Your task to perform on an android device: Open notification settings Image 0: 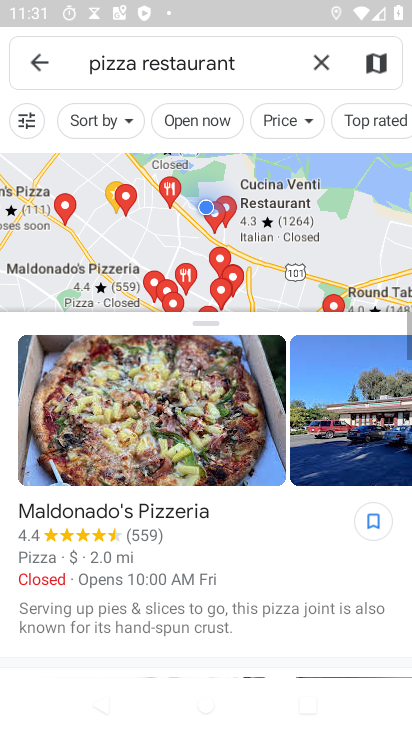
Step 0: press home button
Your task to perform on an android device: Open notification settings Image 1: 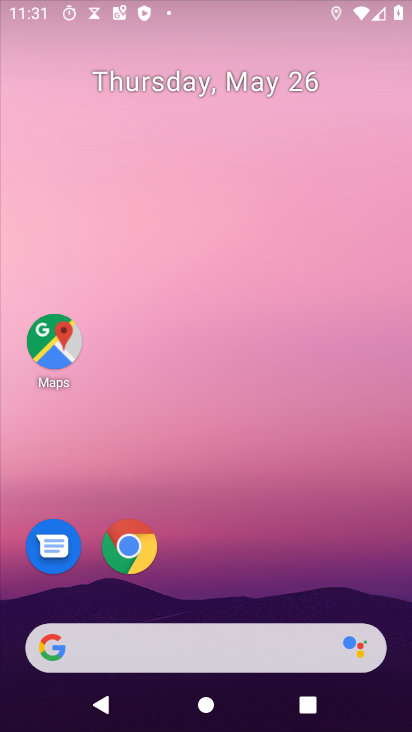
Step 1: drag from (368, 561) to (305, 126)
Your task to perform on an android device: Open notification settings Image 2: 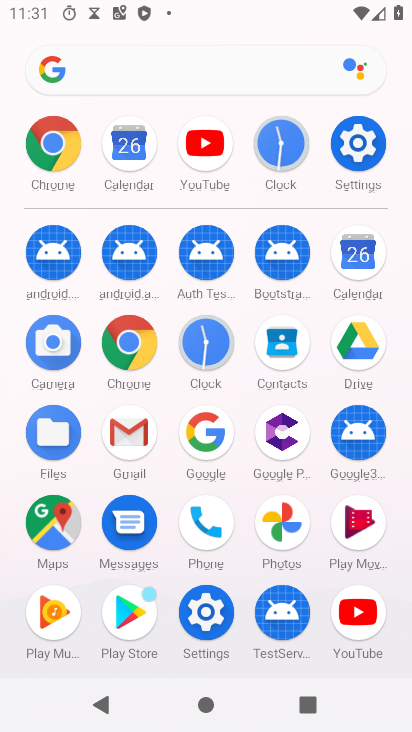
Step 2: click (203, 623)
Your task to perform on an android device: Open notification settings Image 3: 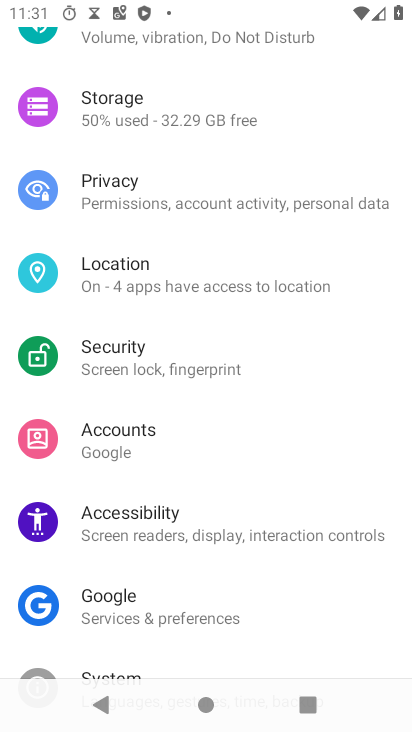
Step 3: drag from (226, 303) to (233, 647)
Your task to perform on an android device: Open notification settings Image 4: 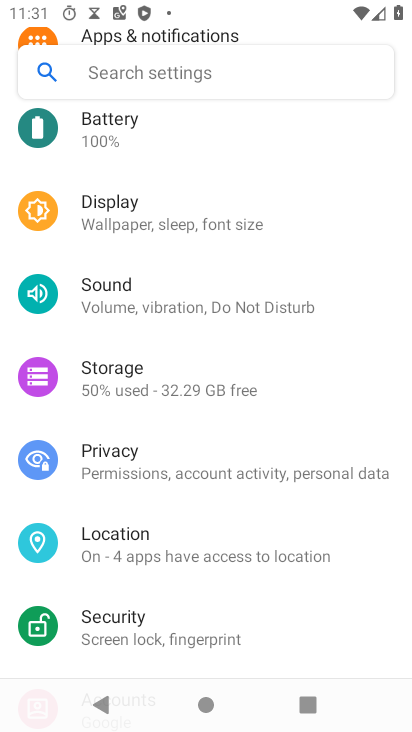
Step 4: drag from (193, 272) to (214, 542)
Your task to perform on an android device: Open notification settings Image 5: 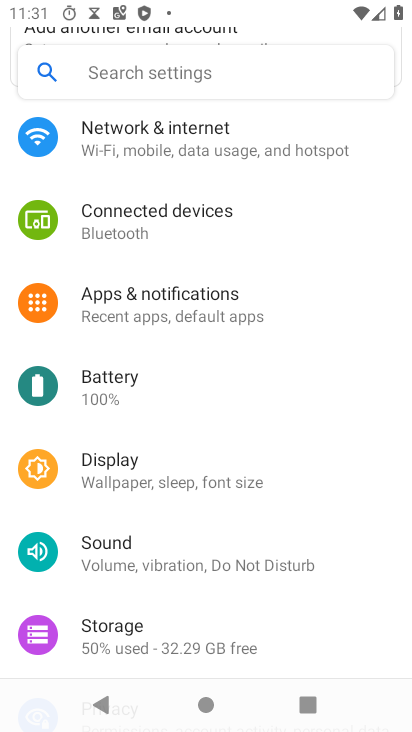
Step 5: click (221, 304)
Your task to perform on an android device: Open notification settings Image 6: 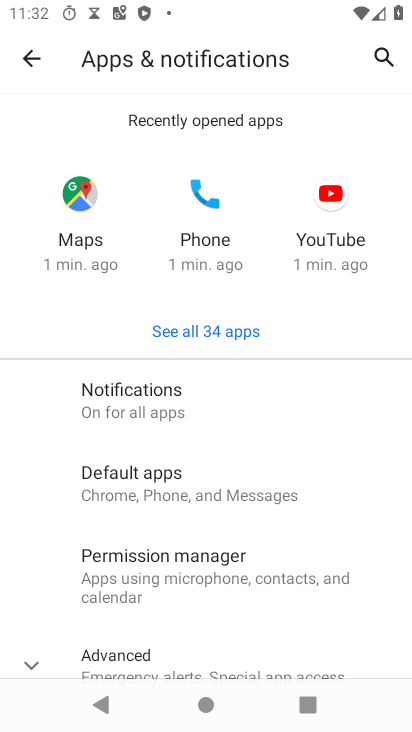
Step 6: click (189, 400)
Your task to perform on an android device: Open notification settings Image 7: 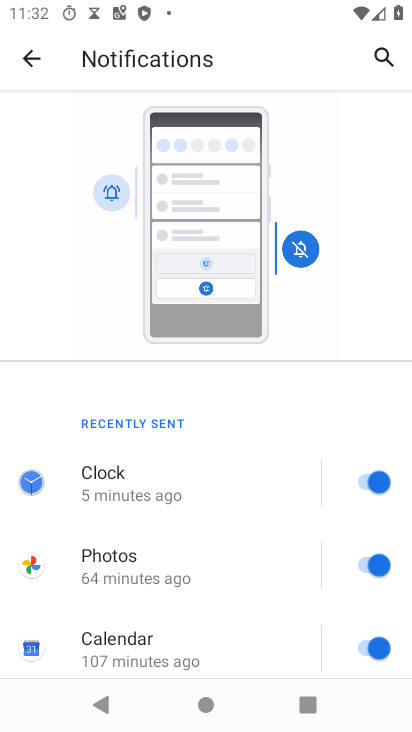
Step 7: task complete